Your task to perform on an android device: What is the recent news? Image 0: 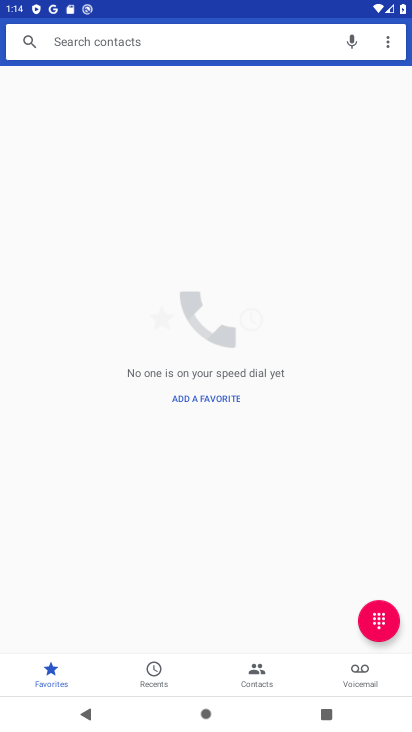
Step 0: press home button
Your task to perform on an android device: What is the recent news? Image 1: 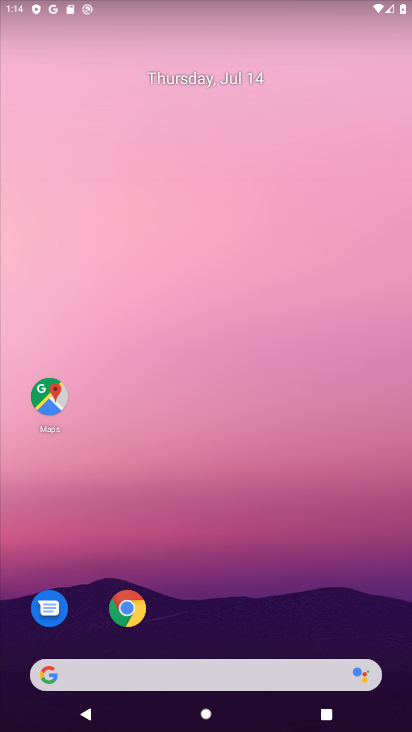
Step 1: click (197, 664)
Your task to perform on an android device: What is the recent news? Image 2: 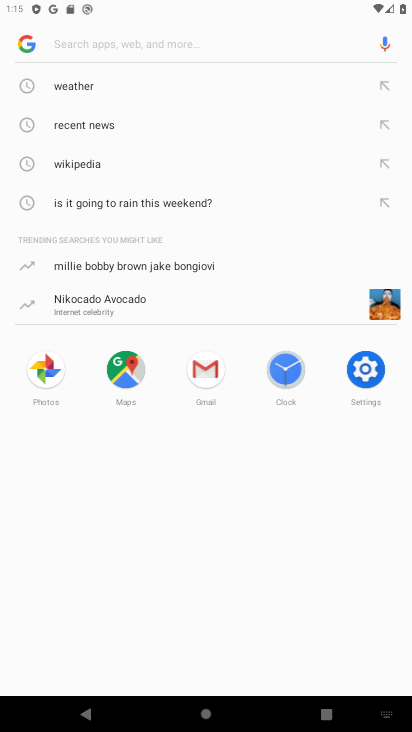
Step 2: click (102, 125)
Your task to perform on an android device: What is the recent news? Image 3: 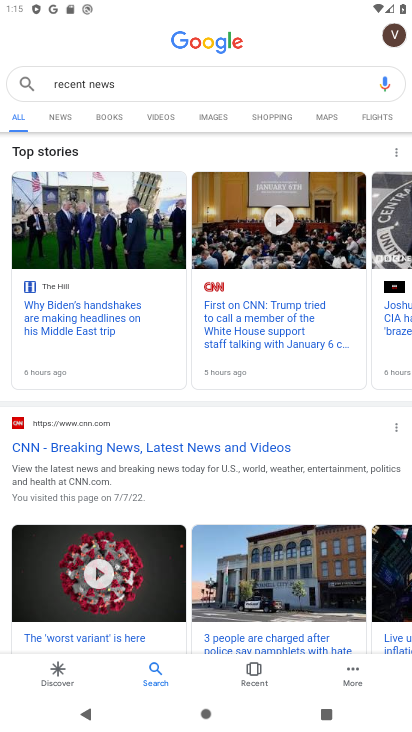
Step 3: task complete